Your task to perform on an android device: Do I have any events tomorrow? Image 0: 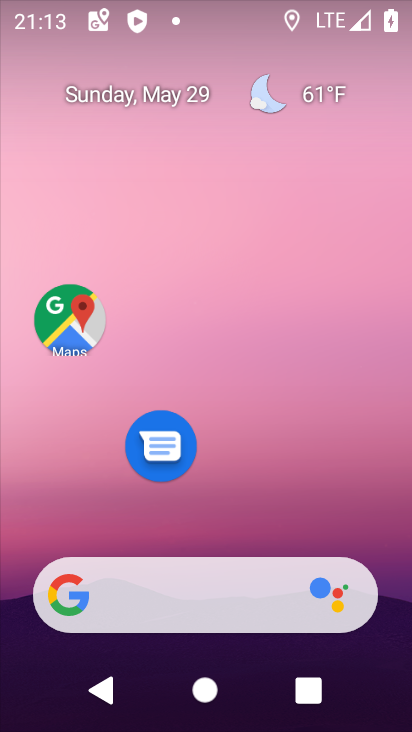
Step 0: drag from (228, 529) to (200, 176)
Your task to perform on an android device: Do I have any events tomorrow? Image 1: 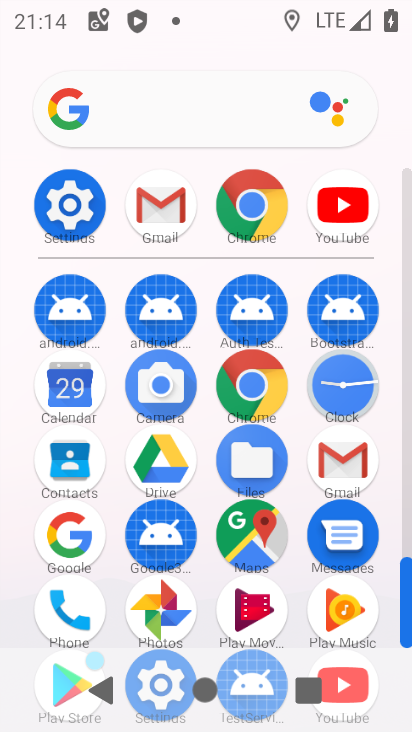
Step 1: click (74, 375)
Your task to perform on an android device: Do I have any events tomorrow? Image 2: 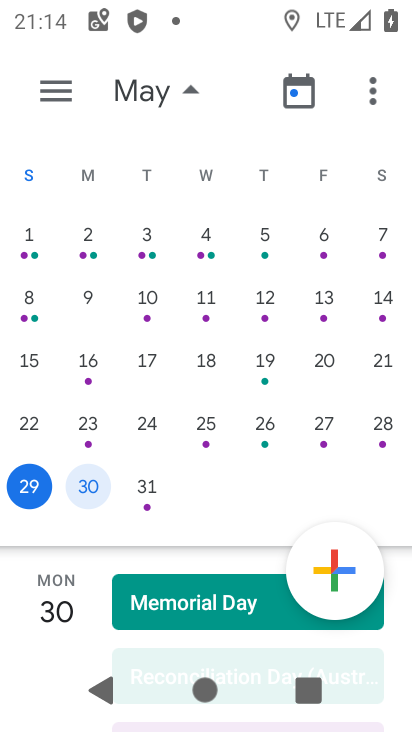
Step 2: click (93, 494)
Your task to perform on an android device: Do I have any events tomorrow? Image 3: 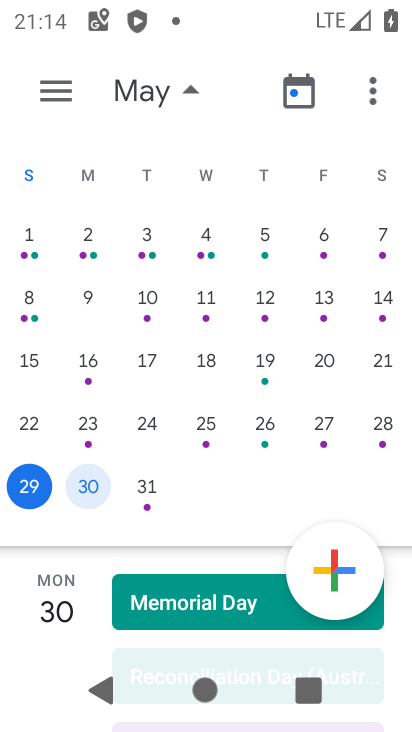
Step 3: task complete